Your task to perform on an android device: remove spam from my inbox in the gmail app Image 0: 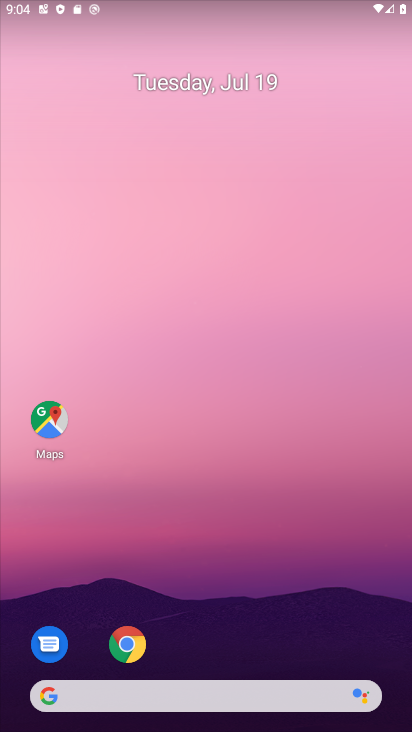
Step 0: drag from (233, 646) to (280, 5)
Your task to perform on an android device: remove spam from my inbox in the gmail app Image 1: 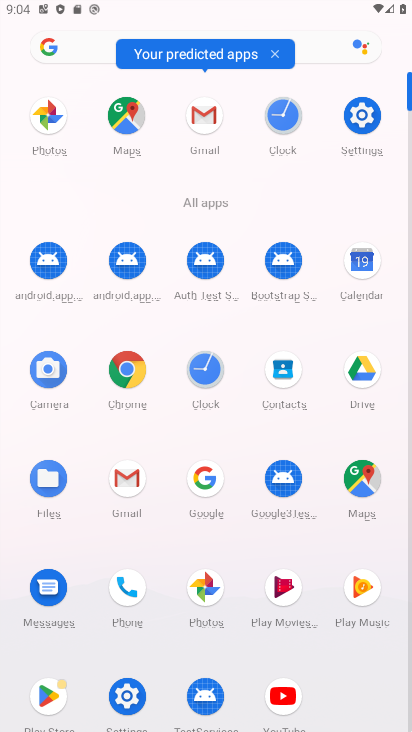
Step 1: click (124, 487)
Your task to perform on an android device: remove spam from my inbox in the gmail app Image 2: 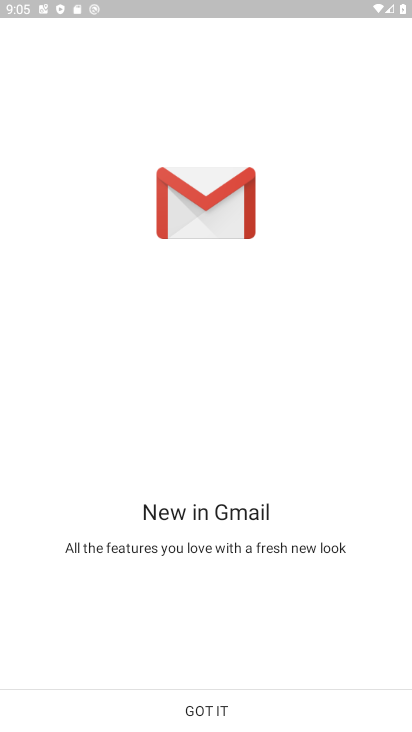
Step 2: click (203, 697)
Your task to perform on an android device: remove spam from my inbox in the gmail app Image 3: 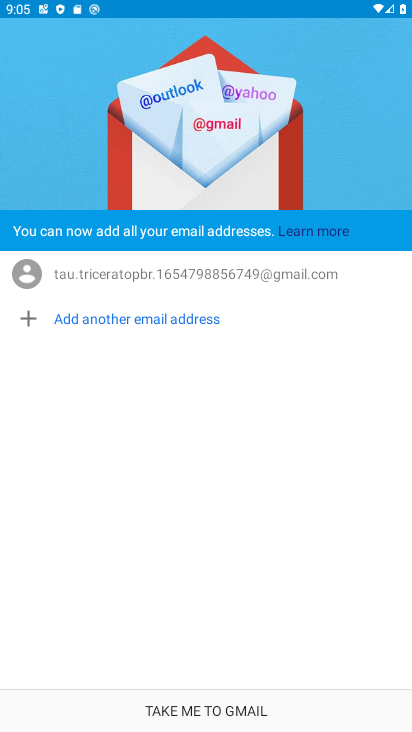
Step 3: click (203, 697)
Your task to perform on an android device: remove spam from my inbox in the gmail app Image 4: 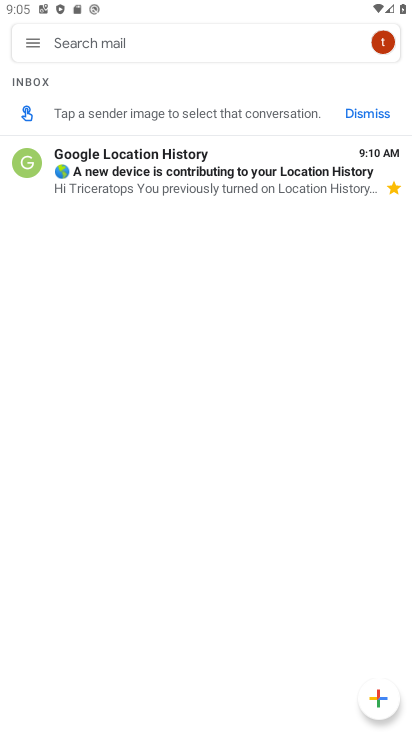
Step 4: click (19, 45)
Your task to perform on an android device: remove spam from my inbox in the gmail app Image 5: 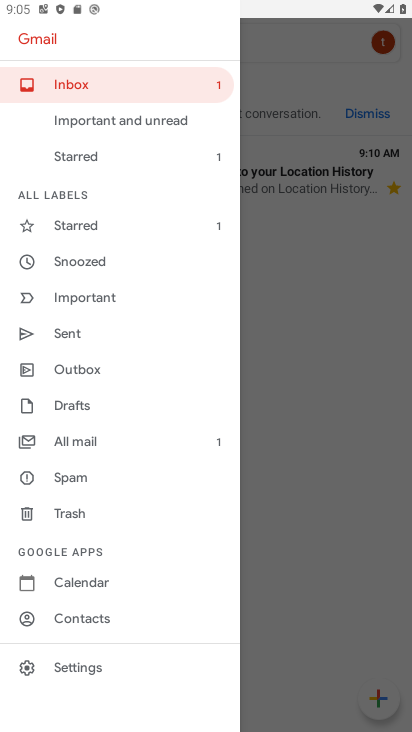
Step 5: click (61, 463)
Your task to perform on an android device: remove spam from my inbox in the gmail app Image 6: 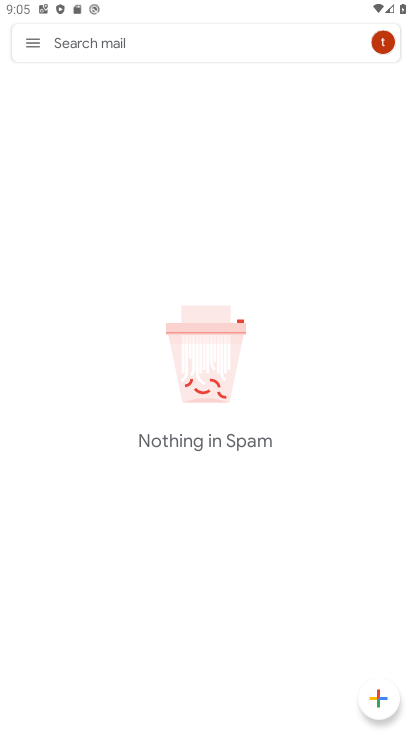
Step 6: task complete